Your task to perform on an android device: check google app version Image 0: 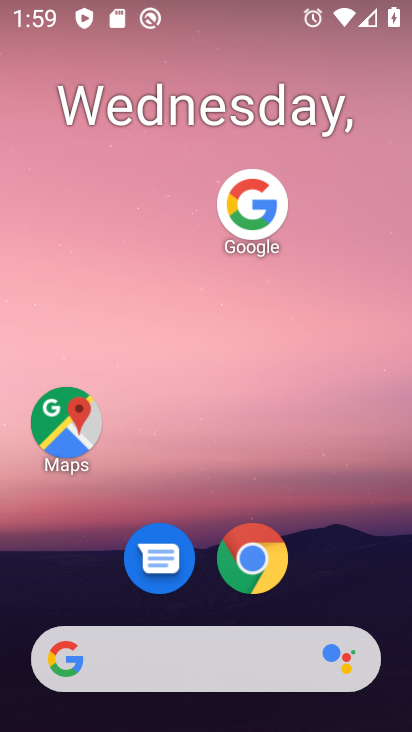
Step 0: drag from (379, 600) to (321, 179)
Your task to perform on an android device: check google app version Image 1: 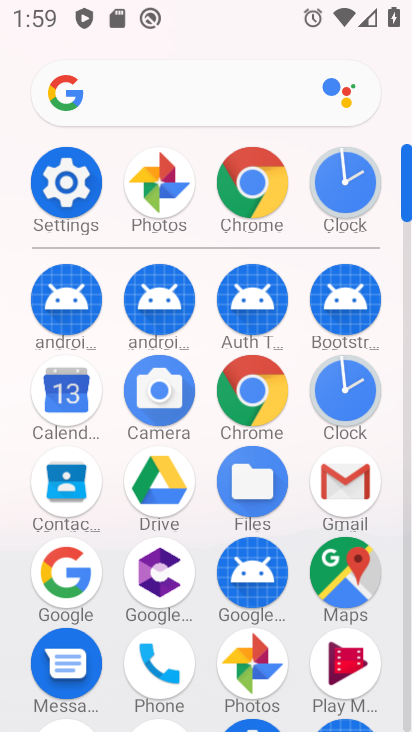
Step 1: click (260, 193)
Your task to perform on an android device: check google app version Image 2: 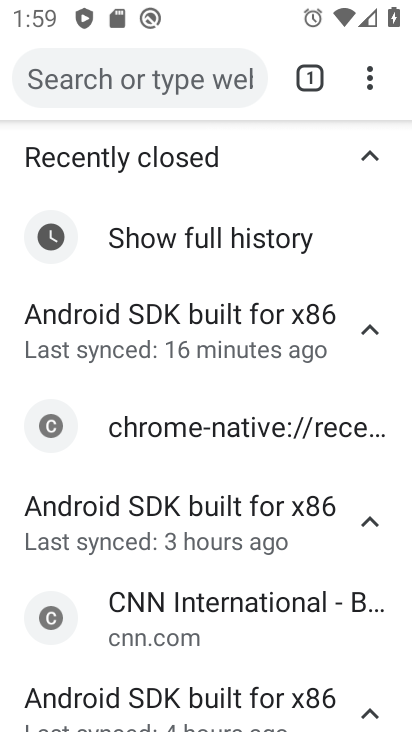
Step 2: click (377, 72)
Your task to perform on an android device: check google app version Image 3: 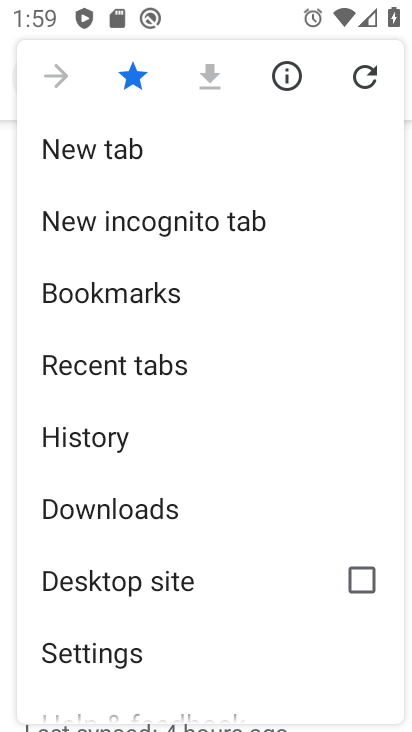
Step 3: drag from (288, 668) to (235, 321)
Your task to perform on an android device: check google app version Image 4: 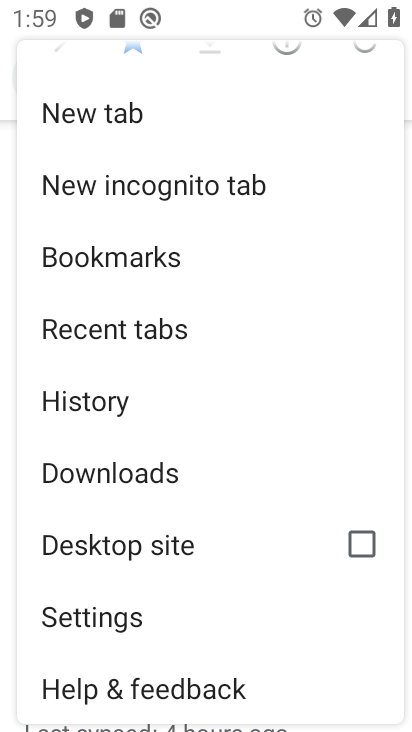
Step 4: click (223, 683)
Your task to perform on an android device: check google app version Image 5: 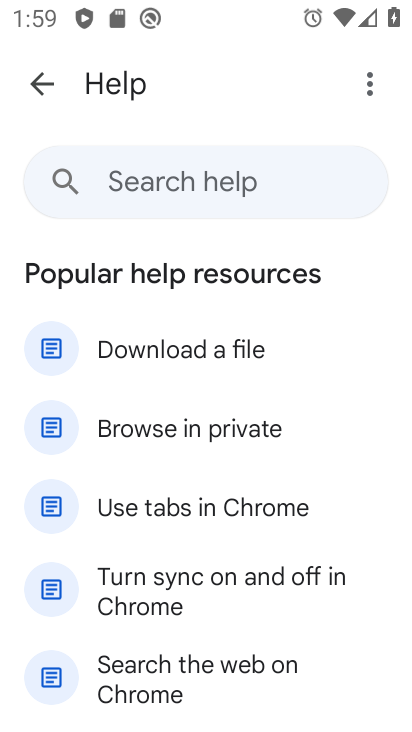
Step 5: click (369, 87)
Your task to perform on an android device: check google app version Image 6: 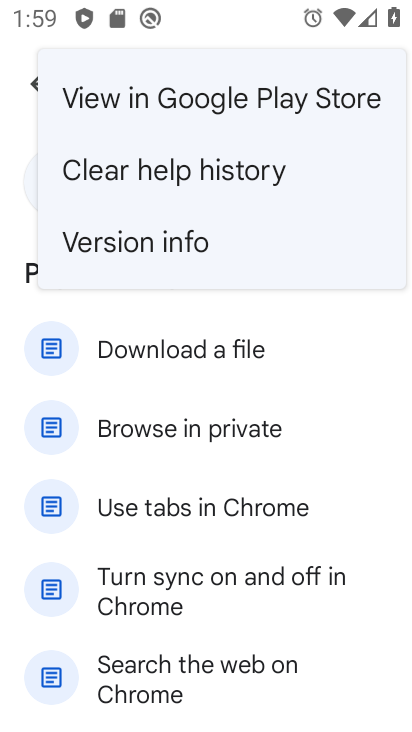
Step 6: click (235, 233)
Your task to perform on an android device: check google app version Image 7: 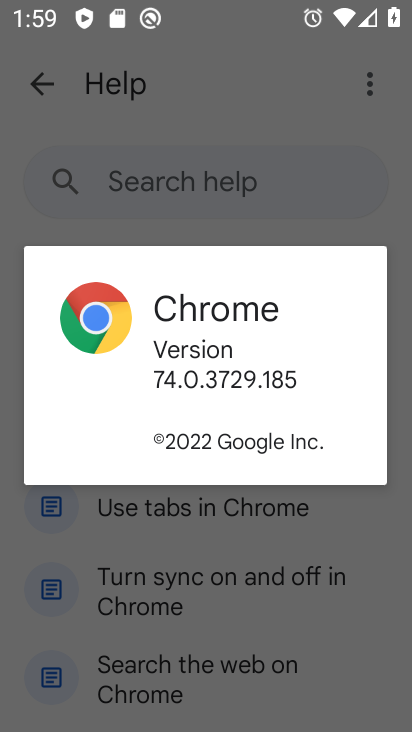
Step 7: task complete